Your task to perform on an android device: Open eBay Image 0: 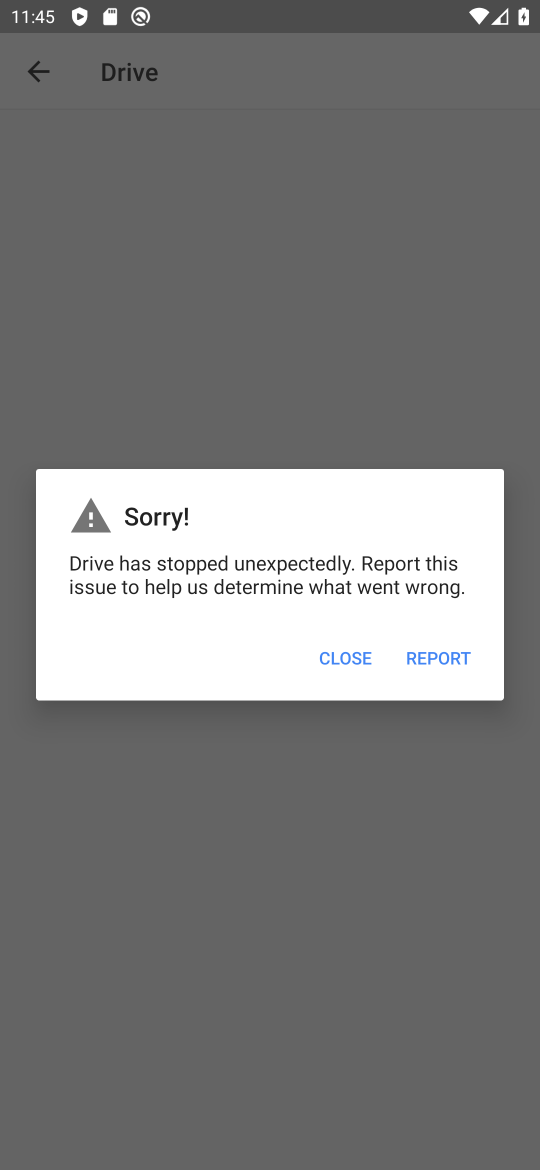
Step 0: press home button
Your task to perform on an android device: Open eBay Image 1: 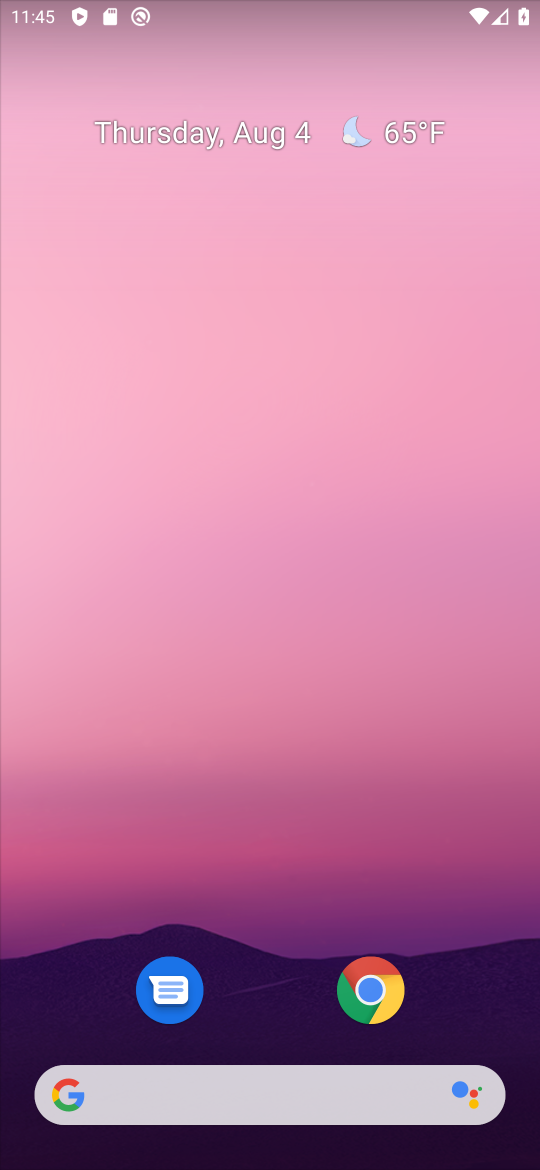
Step 1: click (376, 990)
Your task to perform on an android device: Open eBay Image 2: 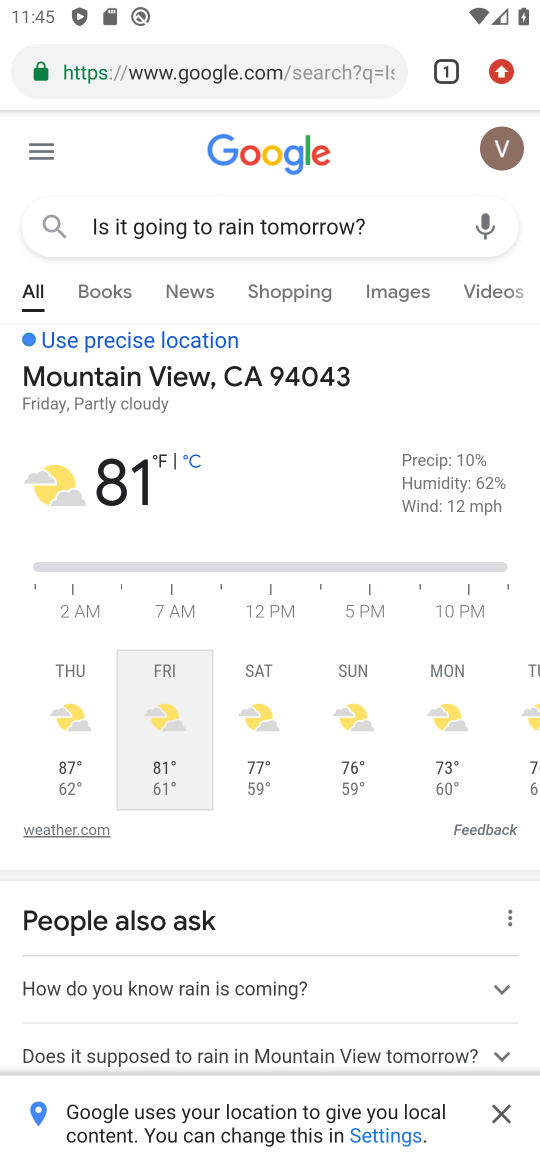
Step 2: click (454, 83)
Your task to perform on an android device: Open eBay Image 3: 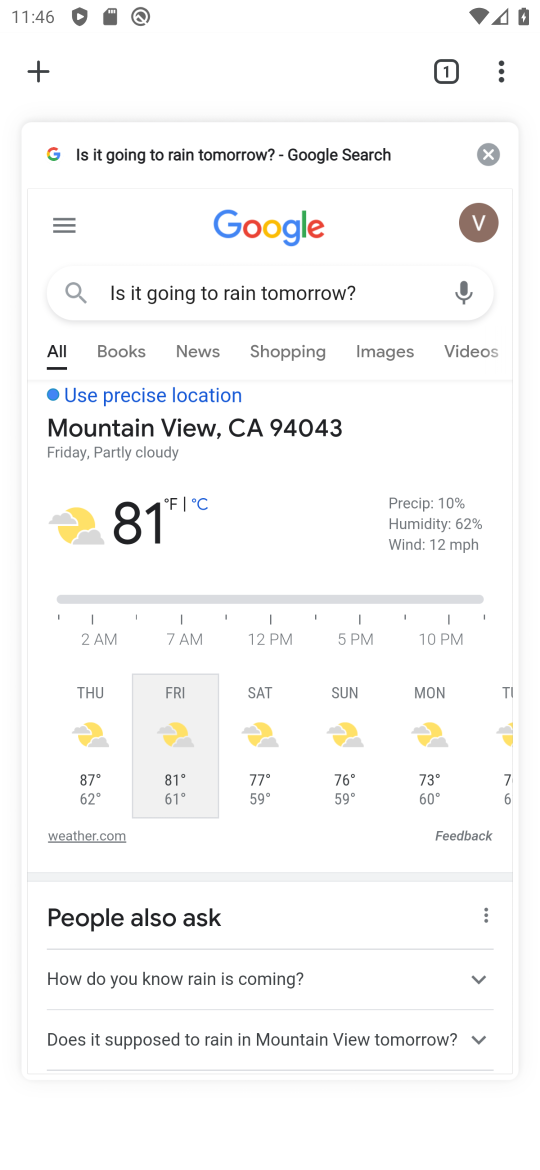
Step 3: click (43, 79)
Your task to perform on an android device: Open eBay Image 4: 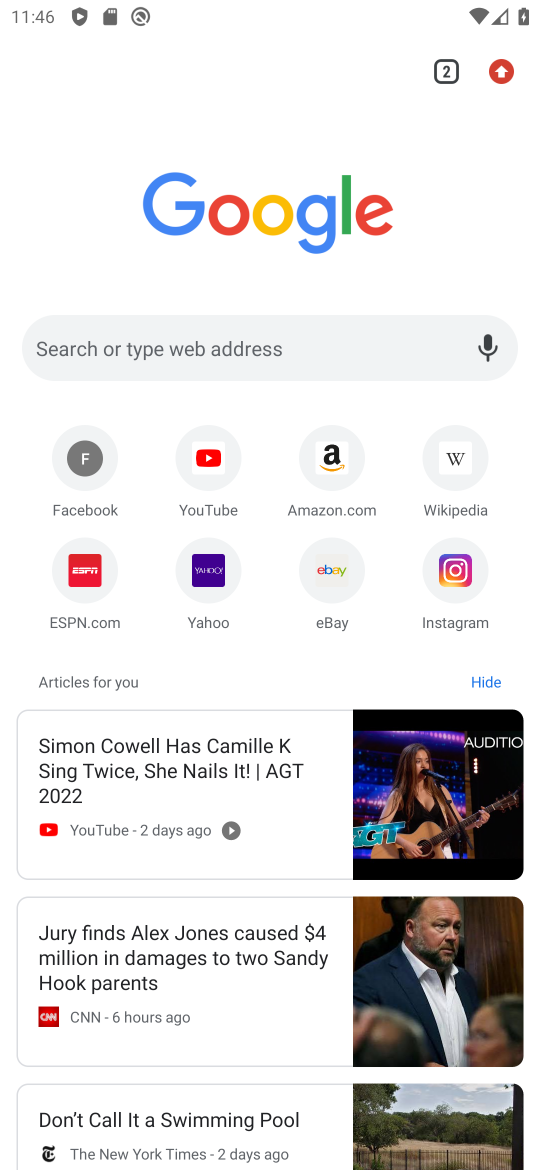
Step 4: click (339, 596)
Your task to perform on an android device: Open eBay Image 5: 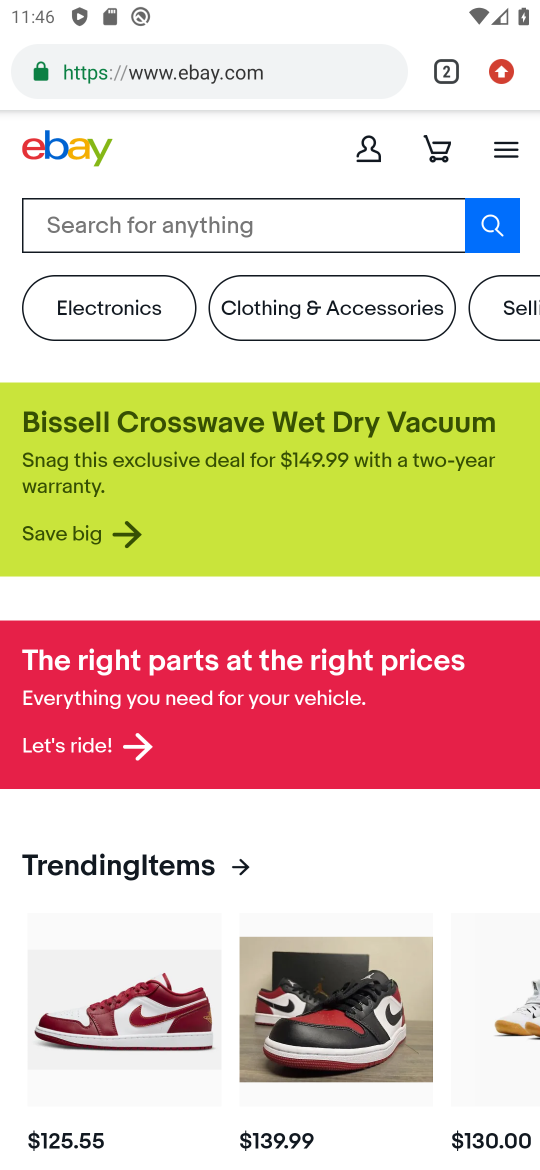
Step 5: task complete